Your task to perform on an android device: Go to wifi settings Image 0: 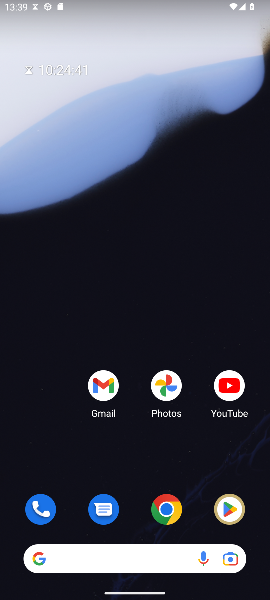
Step 0: press home button
Your task to perform on an android device: Go to wifi settings Image 1: 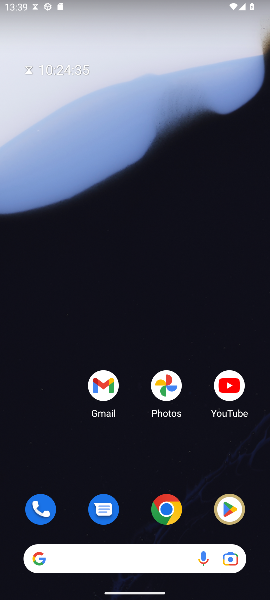
Step 1: drag from (138, 521) to (177, 82)
Your task to perform on an android device: Go to wifi settings Image 2: 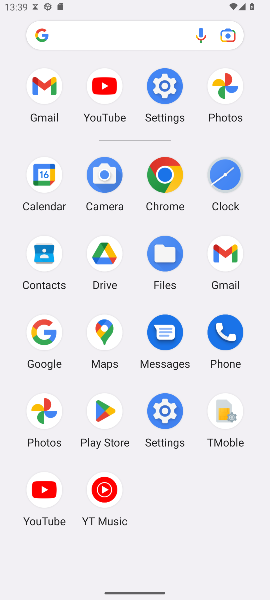
Step 2: click (172, 96)
Your task to perform on an android device: Go to wifi settings Image 3: 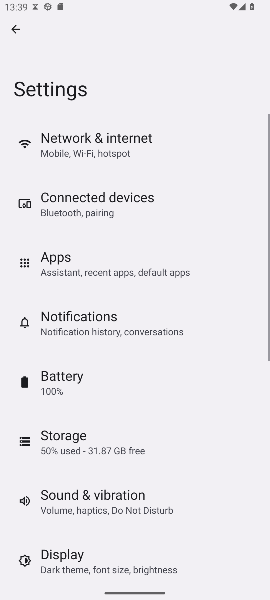
Step 3: click (64, 154)
Your task to perform on an android device: Go to wifi settings Image 4: 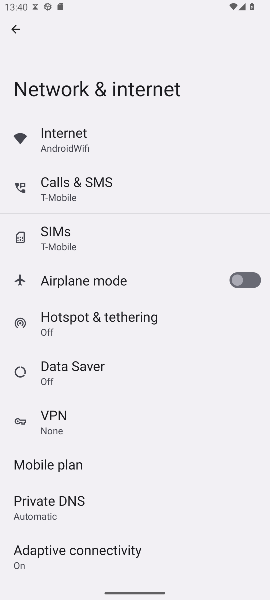
Step 4: click (69, 134)
Your task to perform on an android device: Go to wifi settings Image 5: 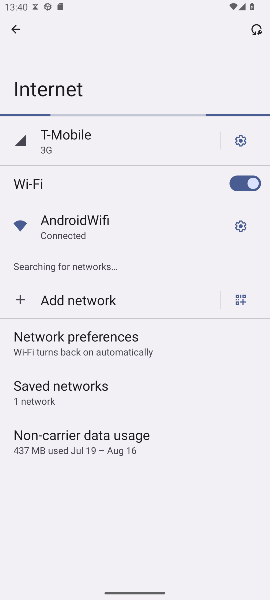
Step 5: click (72, 227)
Your task to perform on an android device: Go to wifi settings Image 6: 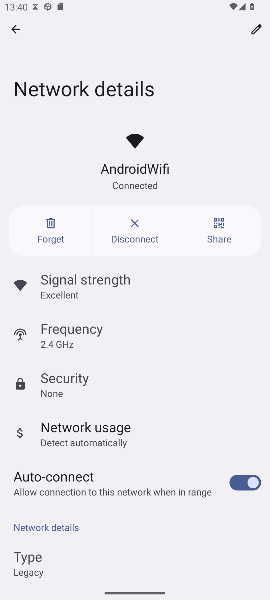
Step 6: task complete